Your task to perform on an android device: toggle wifi Image 0: 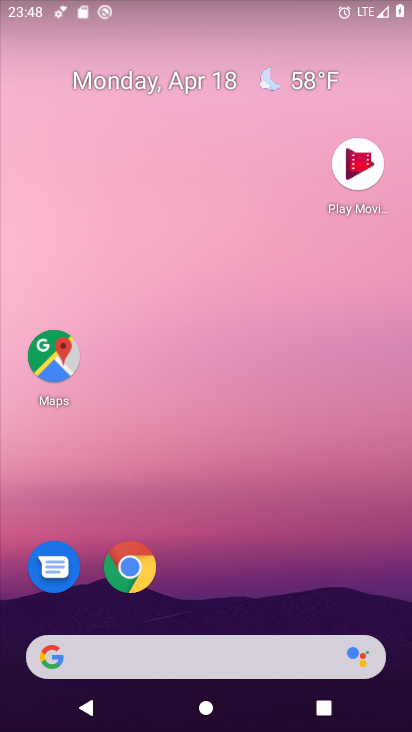
Step 0: click (244, 76)
Your task to perform on an android device: toggle wifi Image 1: 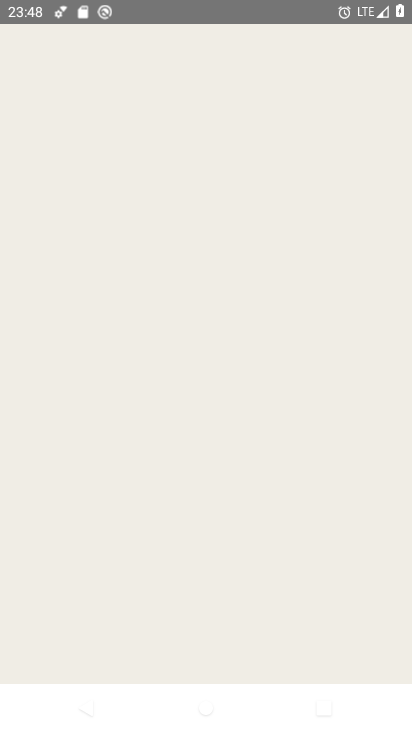
Step 1: drag from (206, 440) to (232, 126)
Your task to perform on an android device: toggle wifi Image 2: 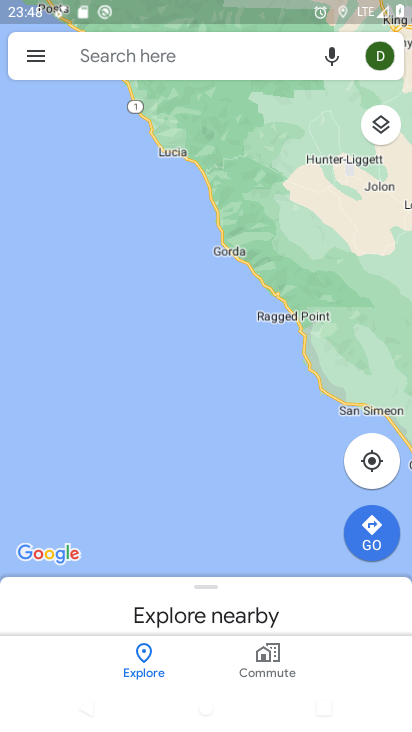
Step 2: press back button
Your task to perform on an android device: toggle wifi Image 3: 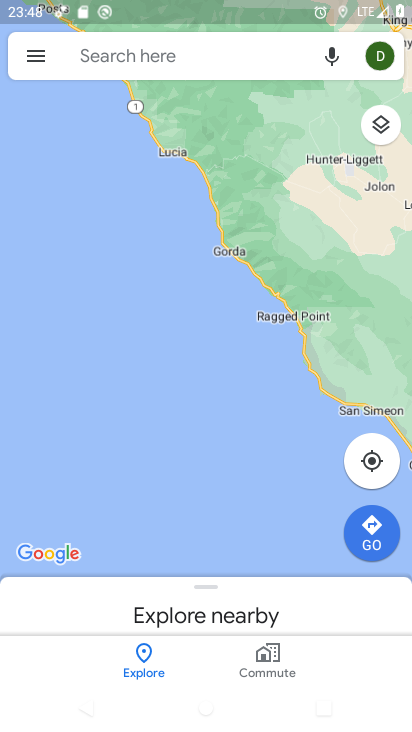
Step 3: press back button
Your task to perform on an android device: toggle wifi Image 4: 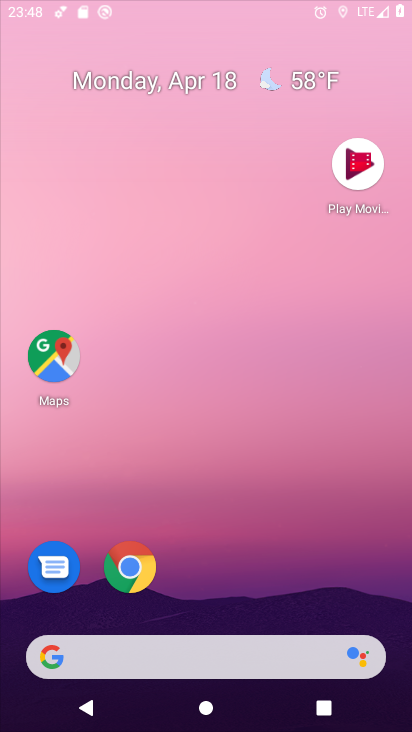
Step 4: press back button
Your task to perform on an android device: toggle wifi Image 5: 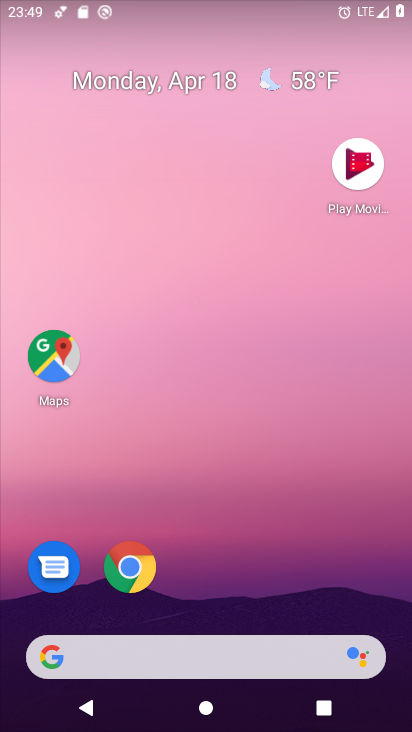
Step 5: drag from (231, 568) to (180, 1)
Your task to perform on an android device: toggle wifi Image 6: 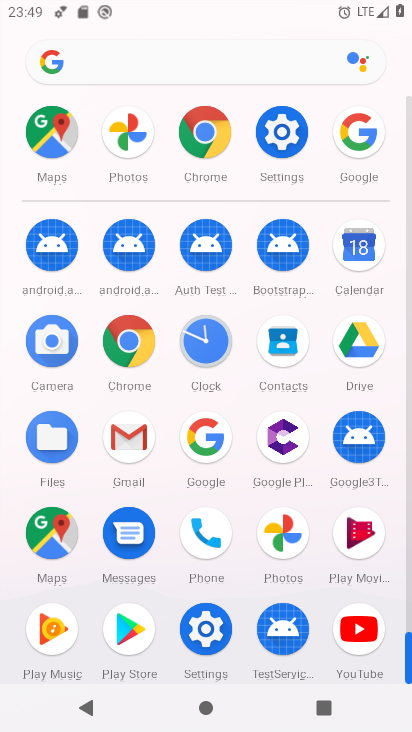
Step 6: click (292, 124)
Your task to perform on an android device: toggle wifi Image 7: 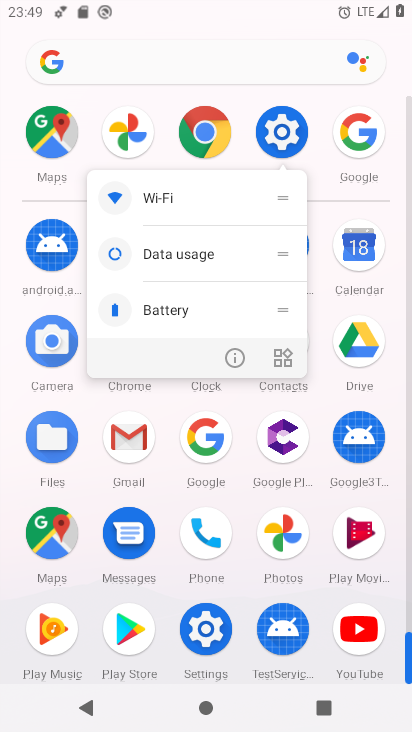
Step 7: click (175, 200)
Your task to perform on an android device: toggle wifi Image 8: 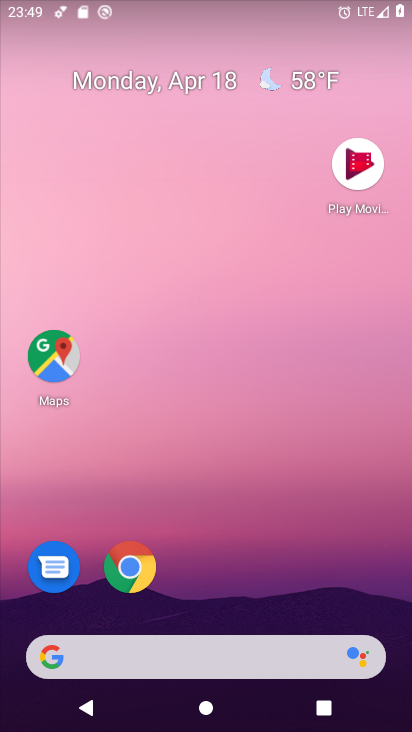
Step 8: drag from (184, 587) to (243, 122)
Your task to perform on an android device: toggle wifi Image 9: 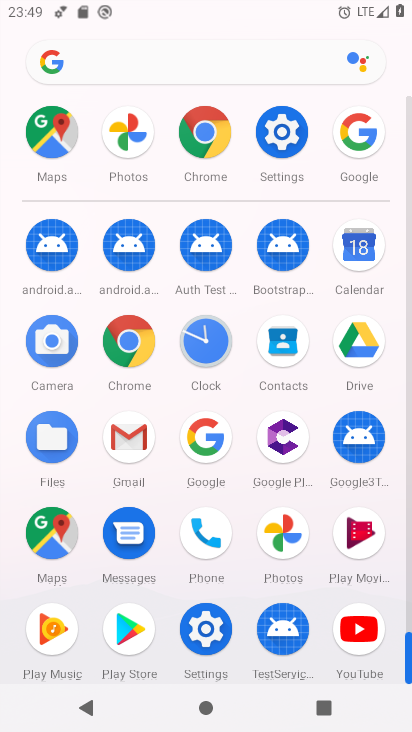
Step 9: click (283, 137)
Your task to perform on an android device: toggle wifi Image 10: 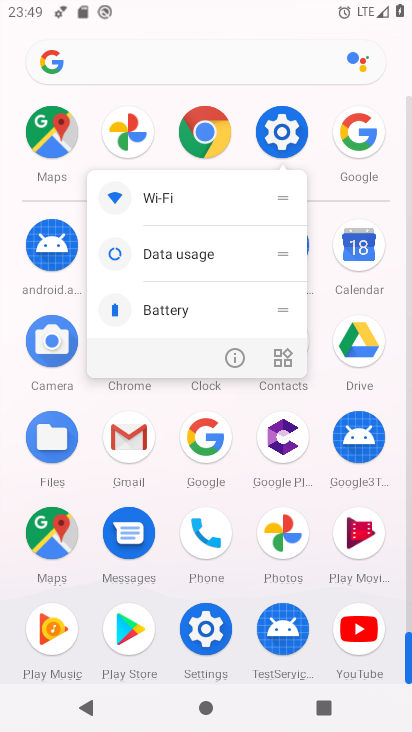
Step 10: click (238, 352)
Your task to perform on an android device: toggle wifi Image 11: 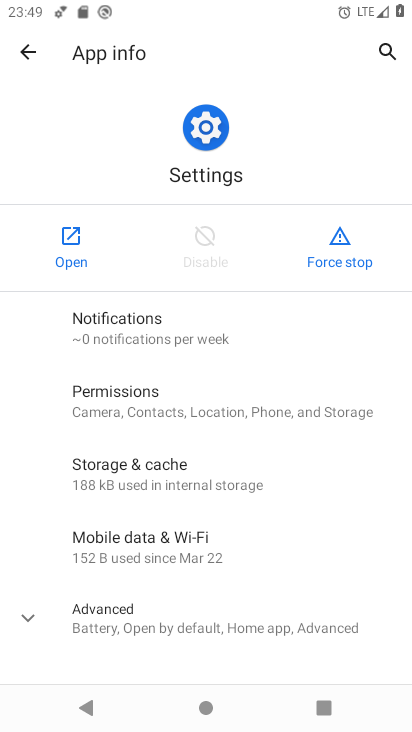
Step 11: click (67, 245)
Your task to perform on an android device: toggle wifi Image 12: 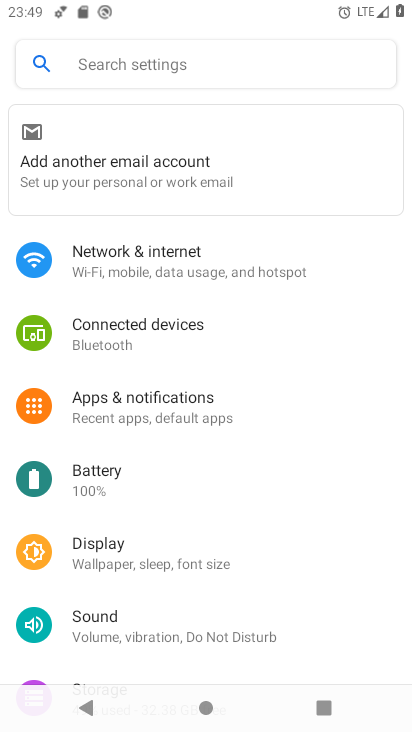
Step 12: click (172, 257)
Your task to perform on an android device: toggle wifi Image 13: 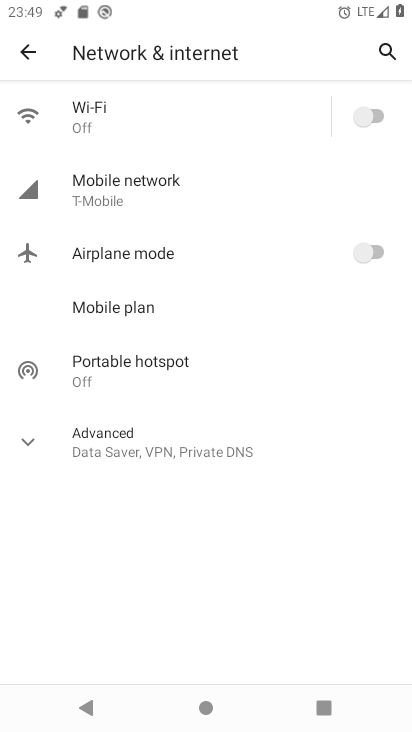
Step 13: click (164, 116)
Your task to perform on an android device: toggle wifi Image 14: 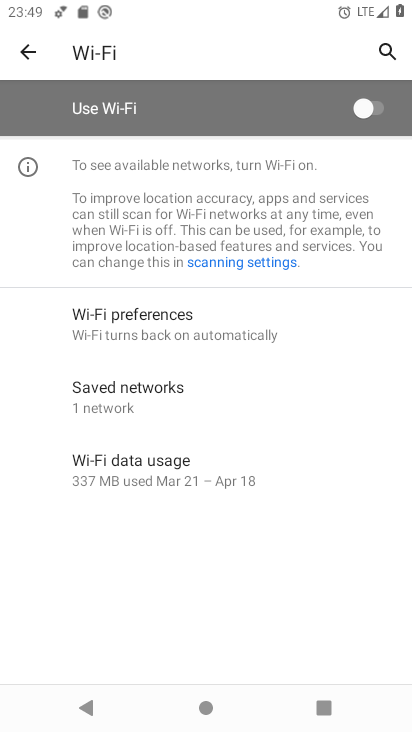
Step 14: click (359, 112)
Your task to perform on an android device: toggle wifi Image 15: 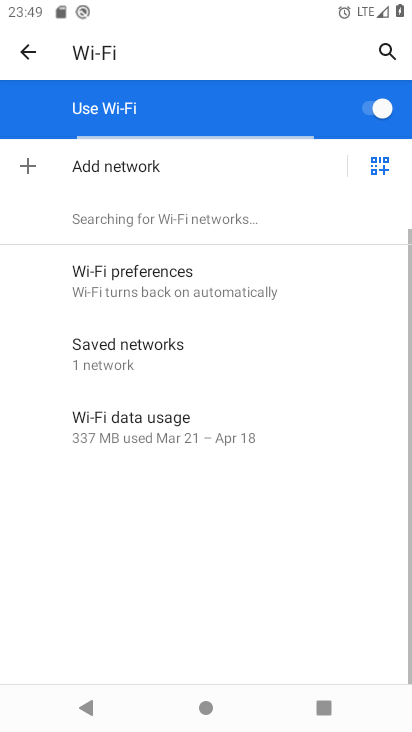
Step 15: task complete